Your task to perform on an android device: Open the phone app and click the voicemail tab. Image 0: 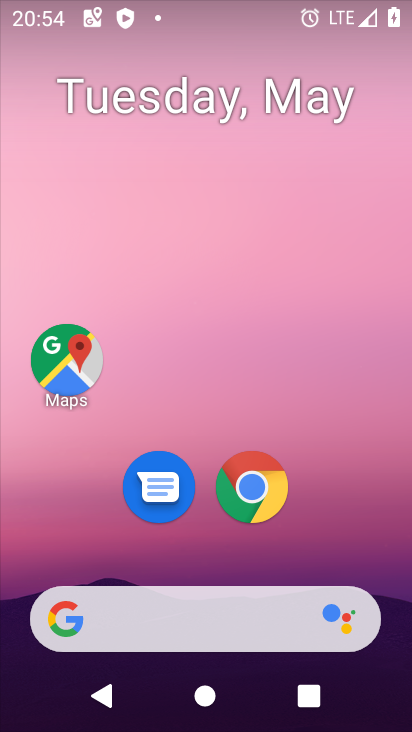
Step 0: drag from (369, 497) to (275, 26)
Your task to perform on an android device: Open the phone app and click the voicemail tab. Image 1: 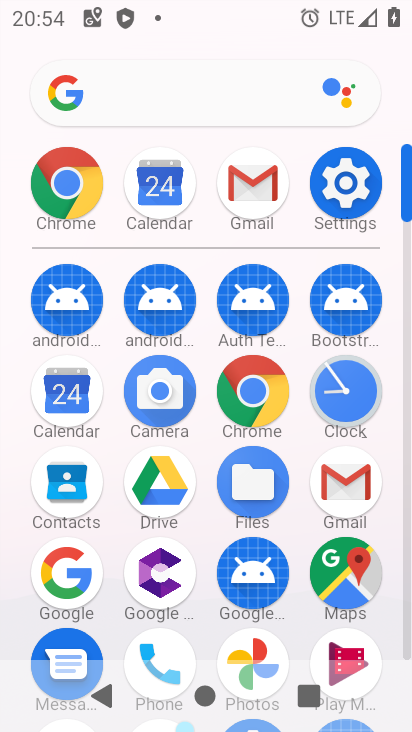
Step 1: click (168, 650)
Your task to perform on an android device: Open the phone app and click the voicemail tab. Image 2: 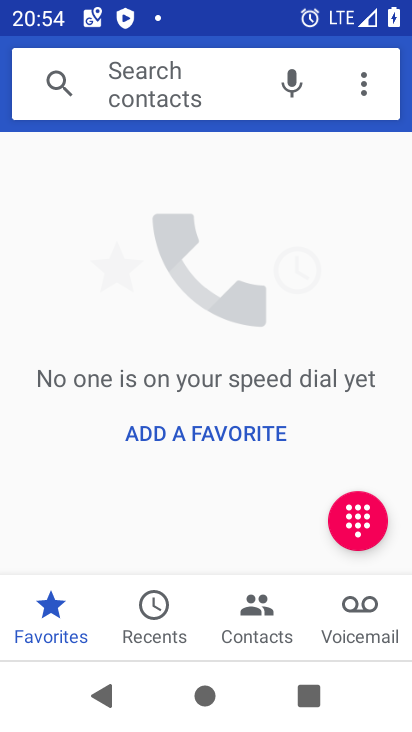
Step 2: click (354, 607)
Your task to perform on an android device: Open the phone app and click the voicemail tab. Image 3: 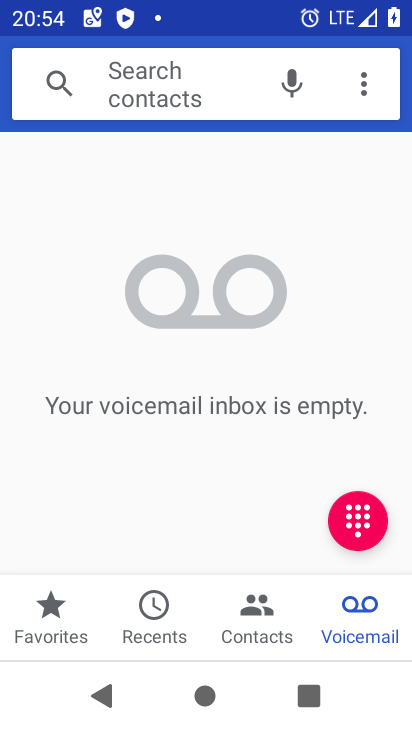
Step 3: task complete